Your task to perform on an android device: search for starred emails in the gmail app Image 0: 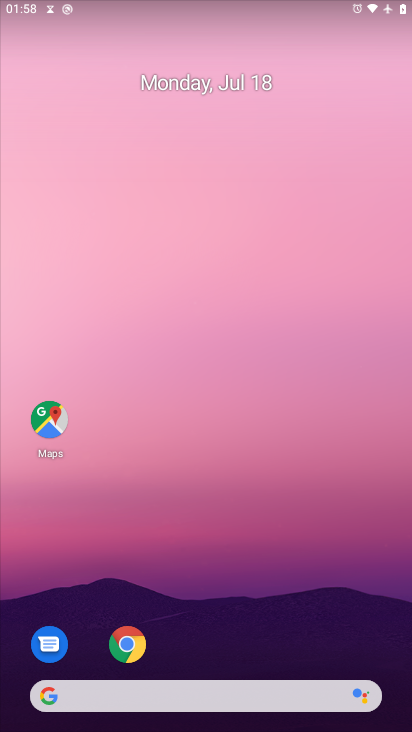
Step 0: press home button
Your task to perform on an android device: search for starred emails in the gmail app Image 1: 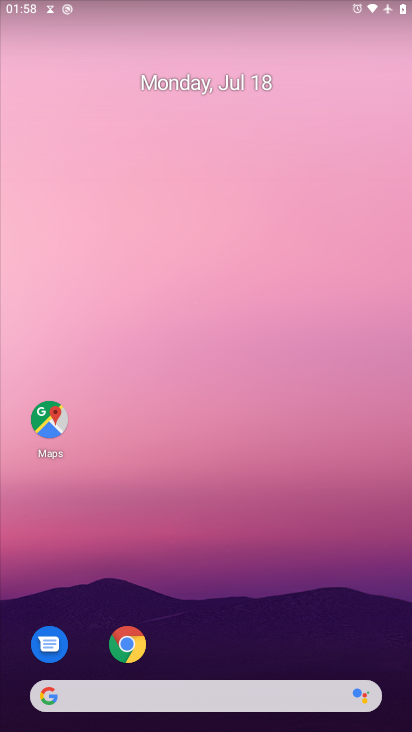
Step 1: drag from (250, 646) to (205, 1)
Your task to perform on an android device: search for starred emails in the gmail app Image 2: 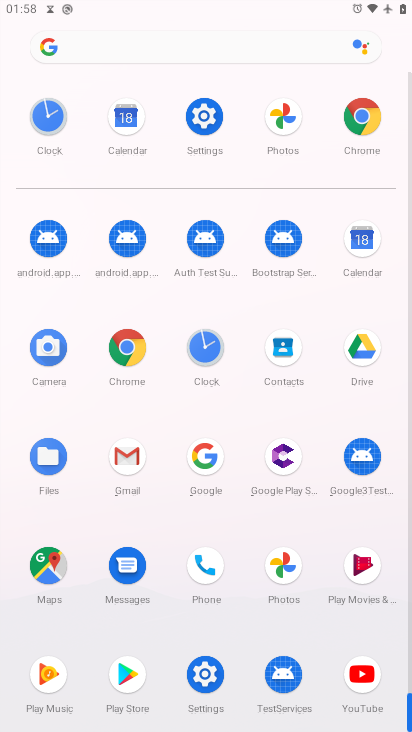
Step 2: click (125, 457)
Your task to perform on an android device: search for starred emails in the gmail app Image 3: 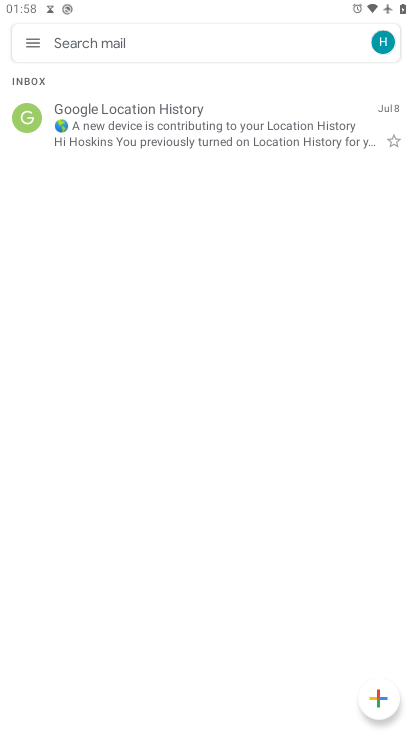
Step 3: click (41, 42)
Your task to perform on an android device: search for starred emails in the gmail app Image 4: 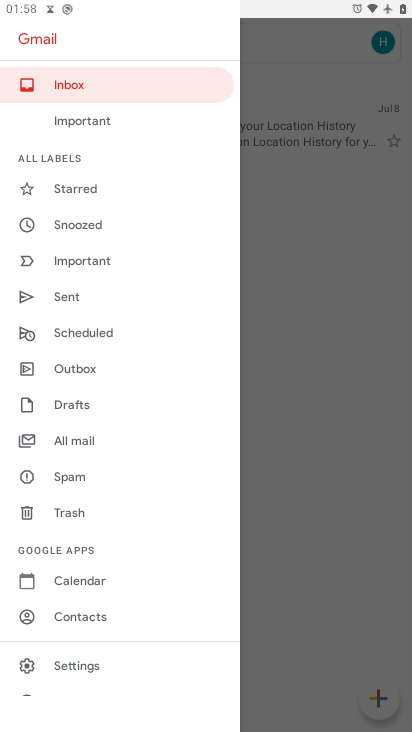
Step 4: click (86, 192)
Your task to perform on an android device: search for starred emails in the gmail app Image 5: 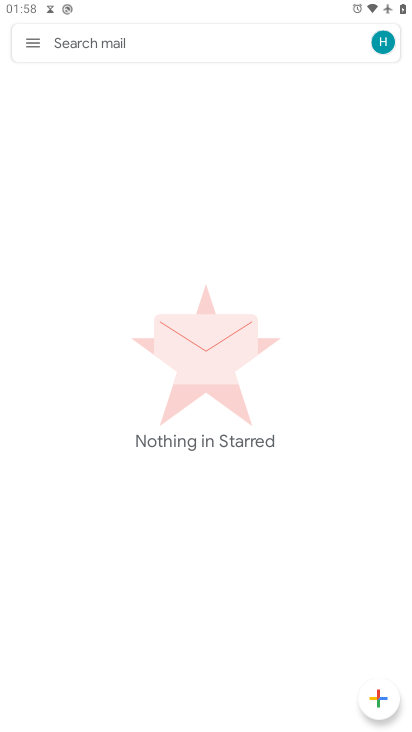
Step 5: task complete